Your task to perform on an android device: Open the Play Movies app and select the watchlist tab. Image 0: 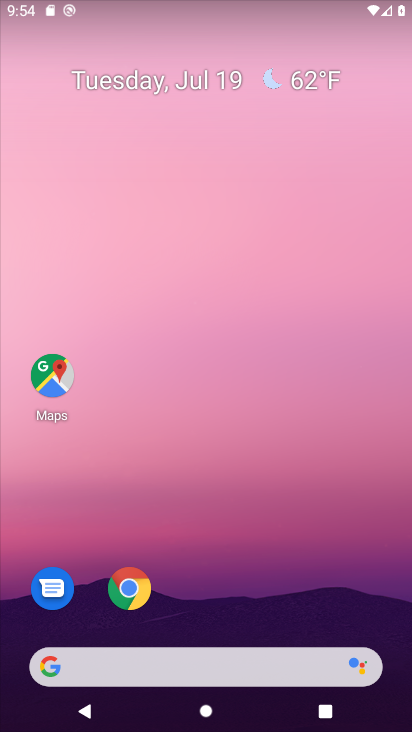
Step 0: drag from (177, 466) to (176, 132)
Your task to perform on an android device: Open the Play Movies app and select the watchlist tab. Image 1: 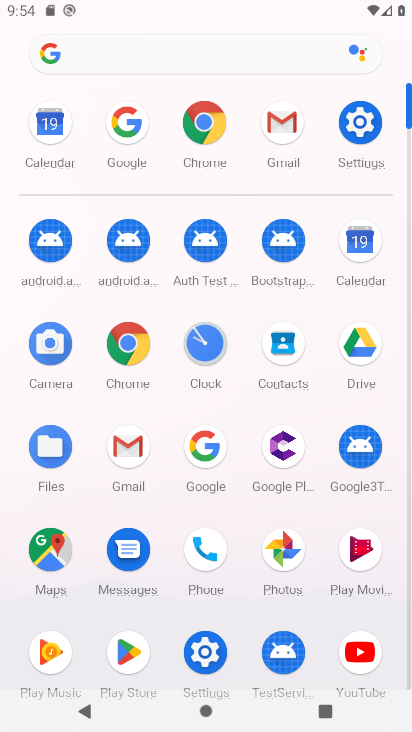
Step 1: click (354, 557)
Your task to perform on an android device: Open the Play Movies app and select the watchlist tab. Image 2: 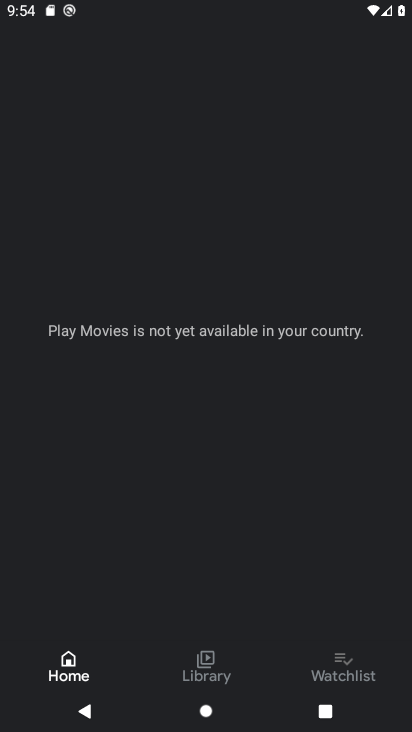
Step 2: click (333, 664)
Your task to perform on an android device: Open the Play Movies app and select the watchlist tab. Image 3: 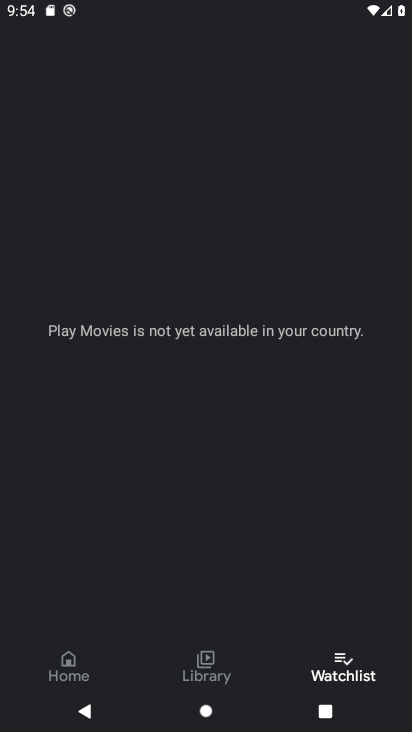
Step 3: task complete